Your task to perform on an android device: Open Reddit.com Image 0: 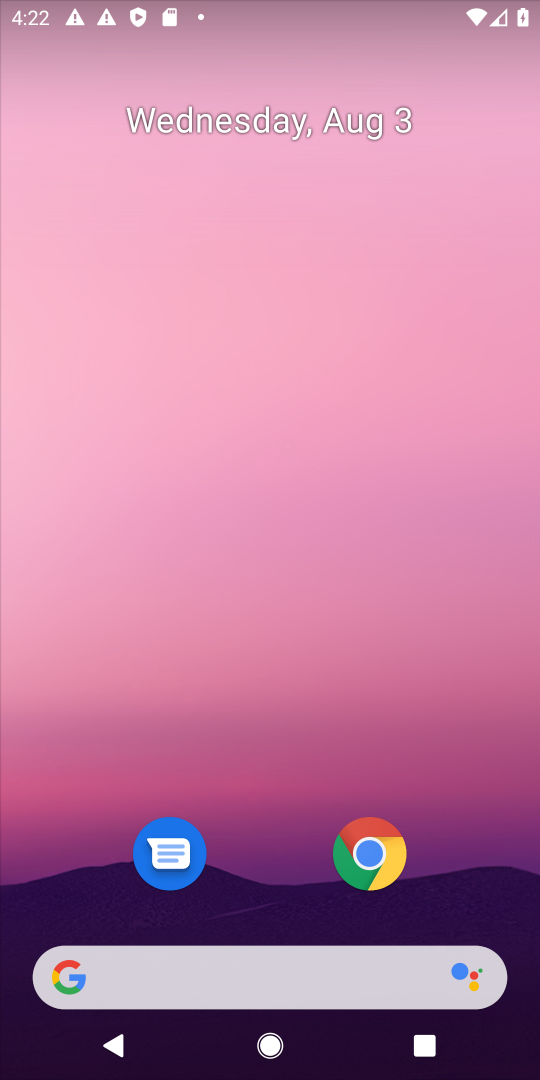
Step 0: click (378, 845)
Your task to perform on an android device: Open Reddit.com Image 1: 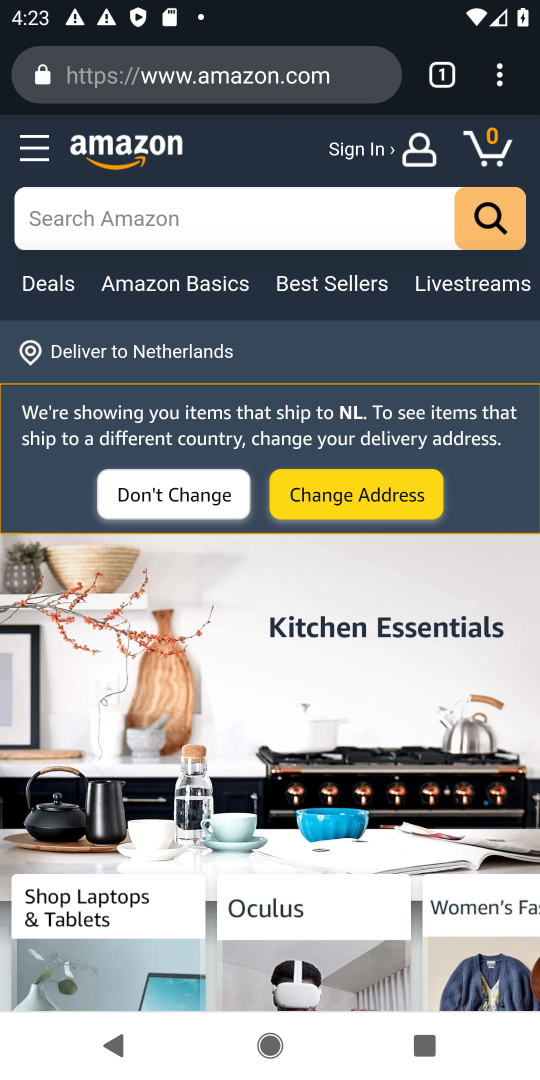
Step 1: click (338, 66)
Your task to perform on an android device: Open Reddit.com Image 2: 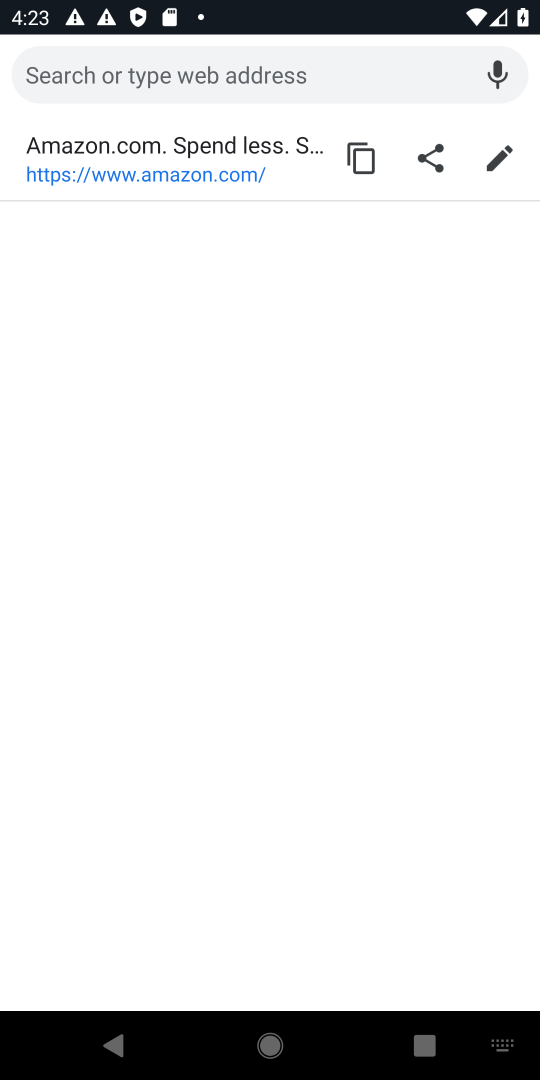
Step 2: type "reddit.com"
Your task to perform on an android device: Open Reddit.com Image 3: 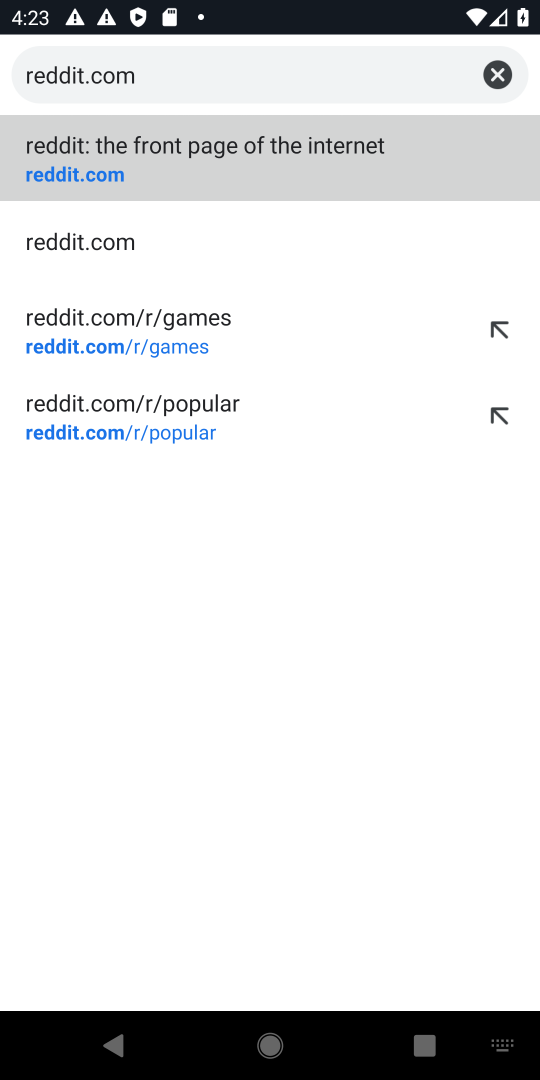
Step 3: click (225, 154)
Your task to perform on an android device: Open Reddit.com Image 4: 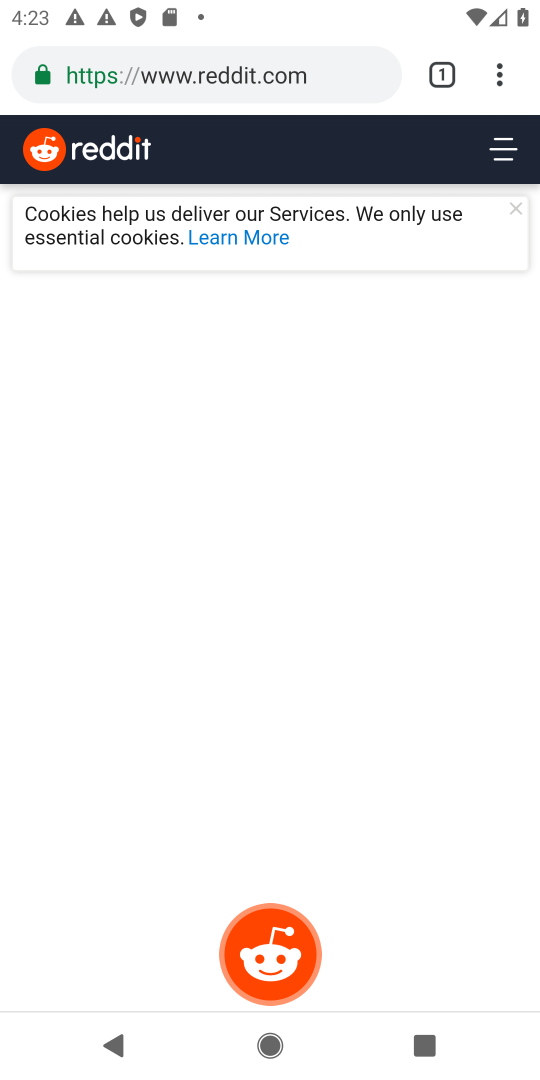
Step 4: task complete